Your task to perform on an android device: set an alarm Image 0: 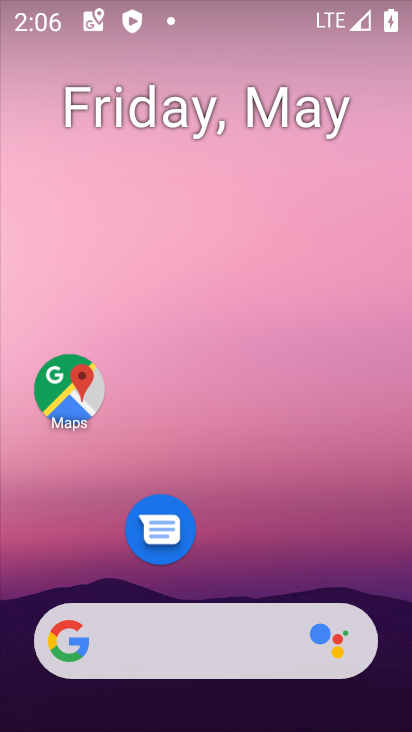
Step 0: click (278, 233)
Your task to perform on an android device: set an alarm Image 1: 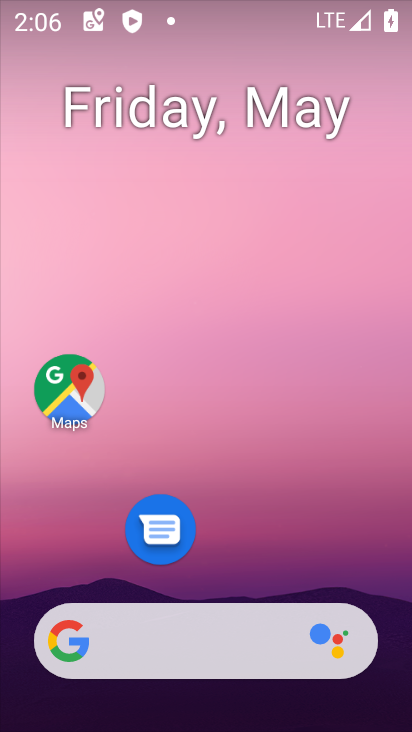
Step 1: drag from (196, 563) to (274, 106)
Your task to perform on an android device: set an alarm Image 2: 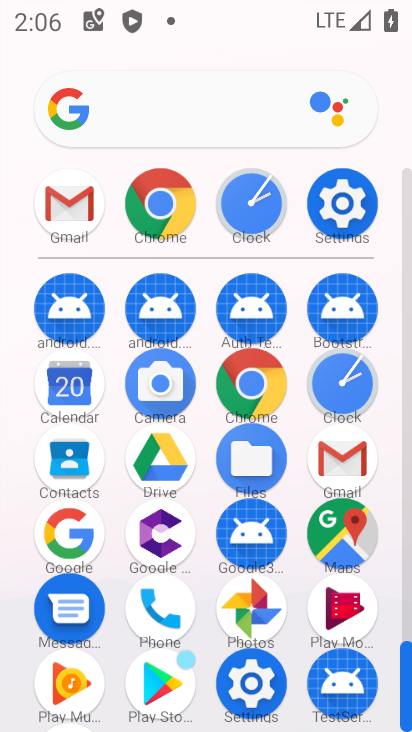
Step 2: click (338, 378)
Your task to perform on an android device: set an alarm Image 3: 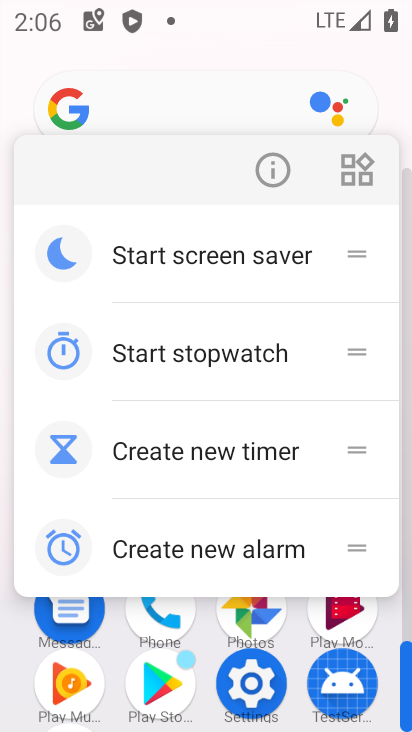
Step 3: click (270, 162)
Your task to perform on an android device: set an alarm Image 4: 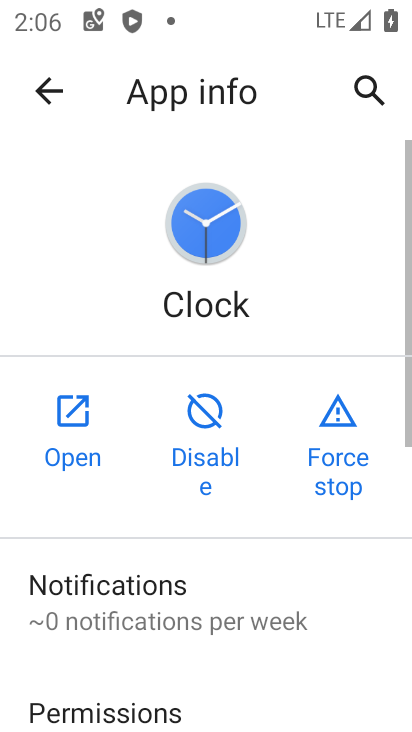
Step 4: click (73, 425)
Your task to perform on an android device: set an alarm Image 5: 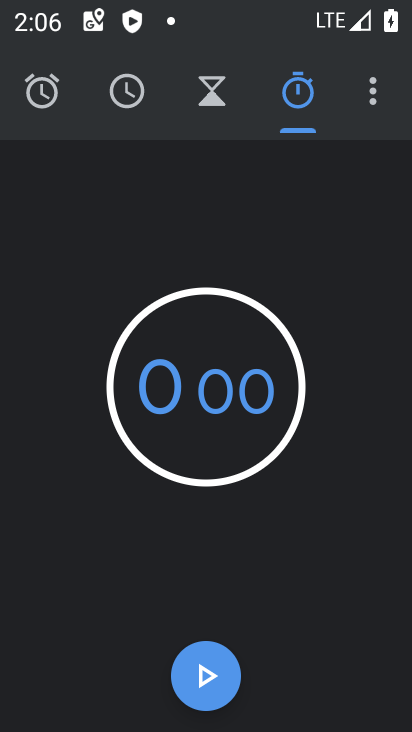
Step 5: click (156, 92)
Your task to perform on an android device: set an alarm Image 6: 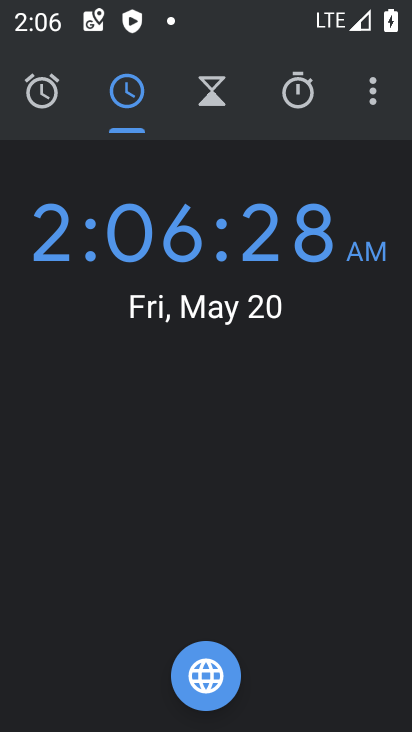
Step 6: click (47, 93)
Your task to perform on an android device: set an alarm Image 7: 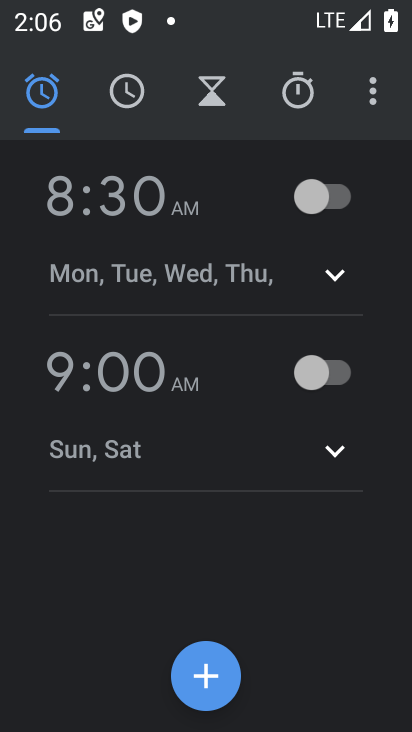
Step 7: click (322, 186)
Your task to perform on an android device: set an alarm Image 8: 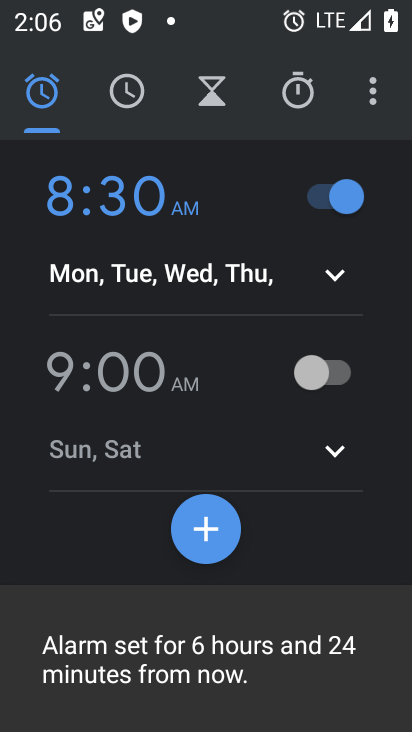
Step 8: task complete